Your task to perform on an android device: What's the weather going to be this weekend? Image 0: 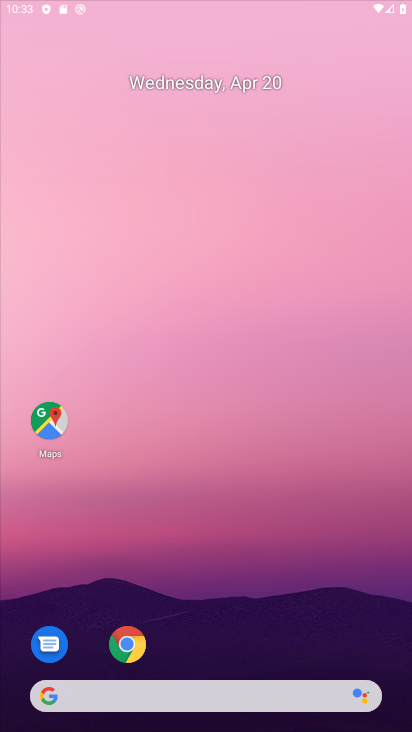
Step 0: drag from (189, 197) to (218, 43)
Your task to perform on an android device: What's the weather going to be this weekend? Image 1: 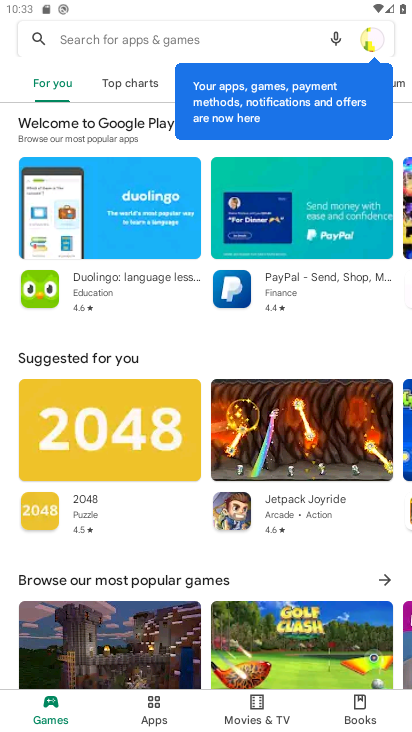
Step 1: press home button
Your task to perform on an android device: What's the weather going to be this weekend? Image 2: 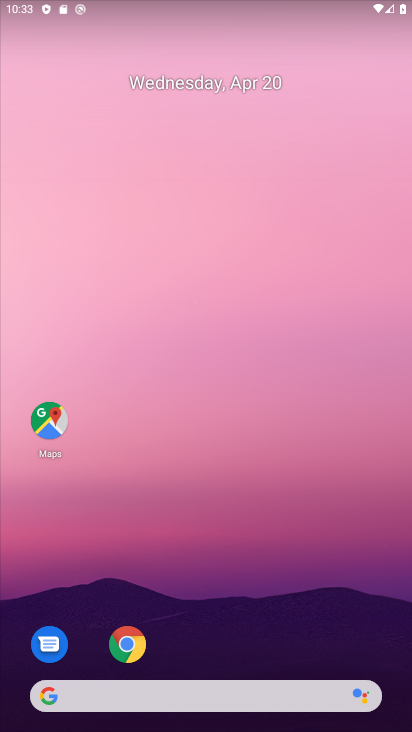
Step 2: click (236, 695)
Your task to perform on an android device: What's the weather going to be this weekend? Image 3: 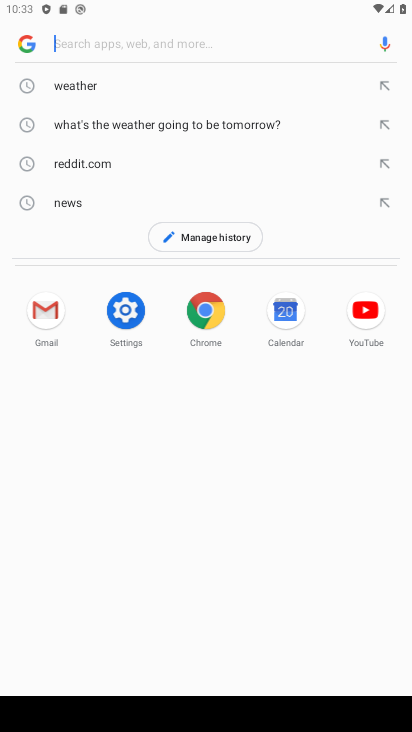
Step 3: type "What's the weather going to be this weekend?"
Your task to perform on an android device: What's the weather going to be this weekend? Image 4: 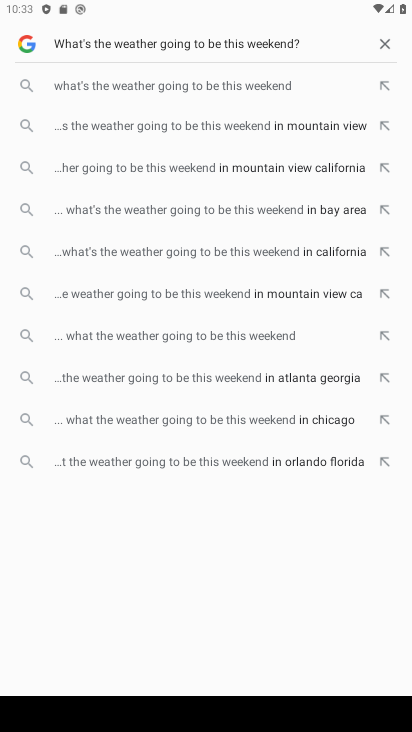
Step 4: click (249, 87)
Your task to perform on an android device: What's the weather going to be this weekend? Image 5: 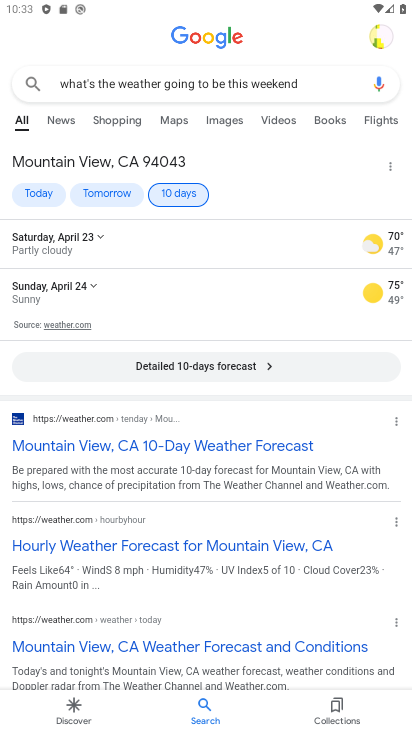
Step 5: task complete